Your task to perform on an android device: change the clock display to analog Image 0: 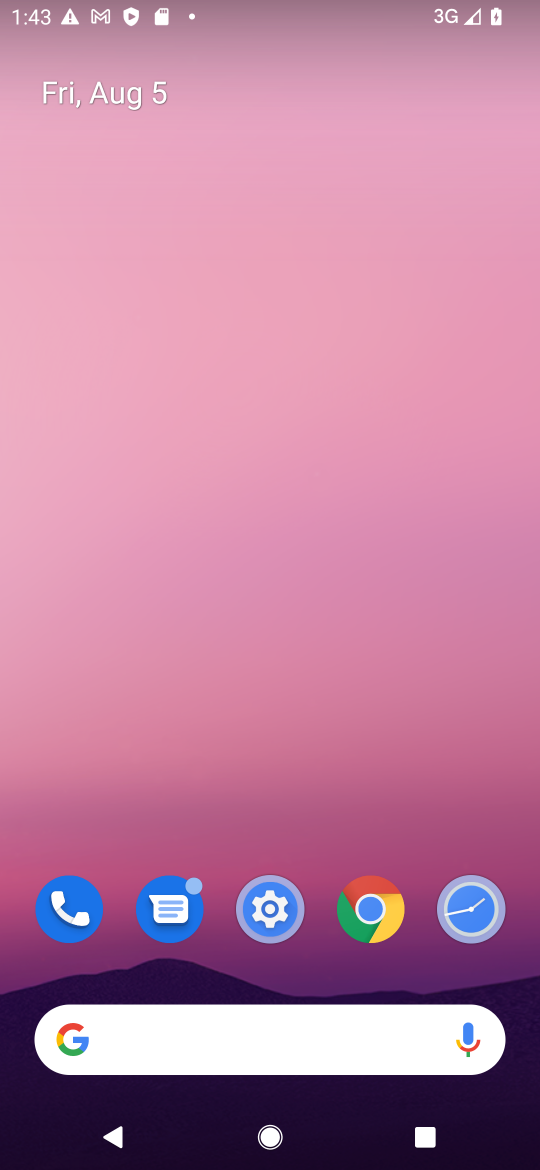
Step 0: drag from (344, 815) to (332, 126)
Your task to perform on an android device: change the clock display to analog Image 1: 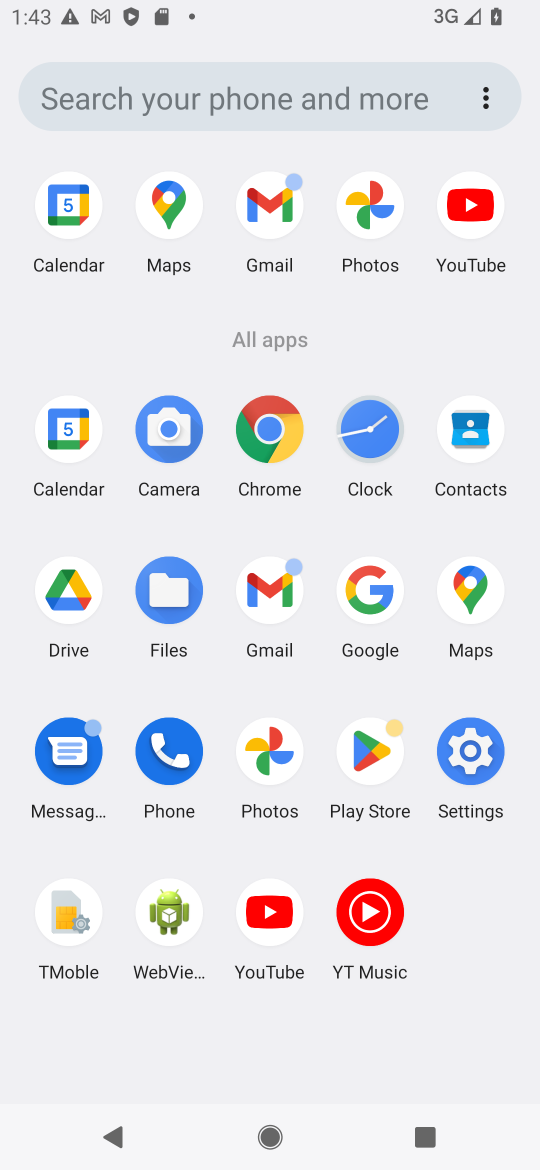
Step 1: click (367, 432)
Your task to perform on an android device: change the clock display to analog Image 2: 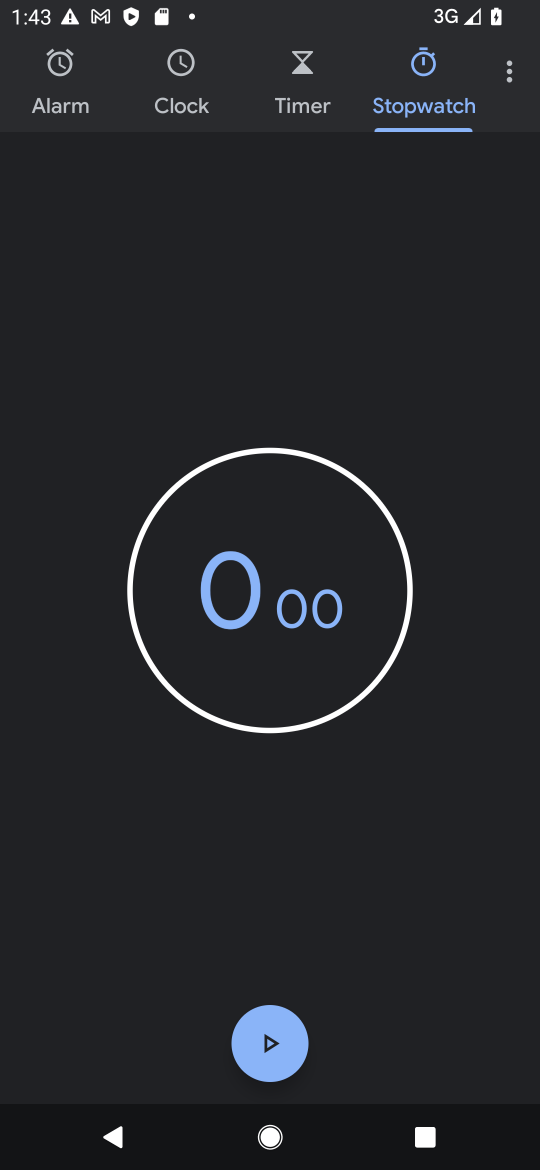
Step 2: click (515, 73)
Your task to perform on an android device: change the clock display to analog Image 3: 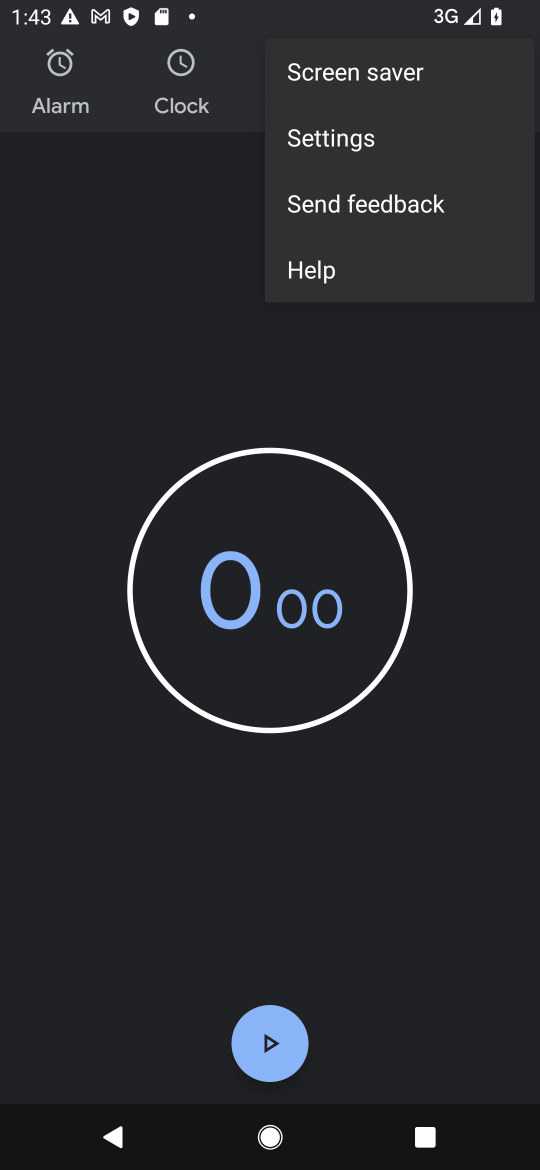
Step 3: click (348, 131)
Your task to perform on an android device: change the clock display to analog Image 4: 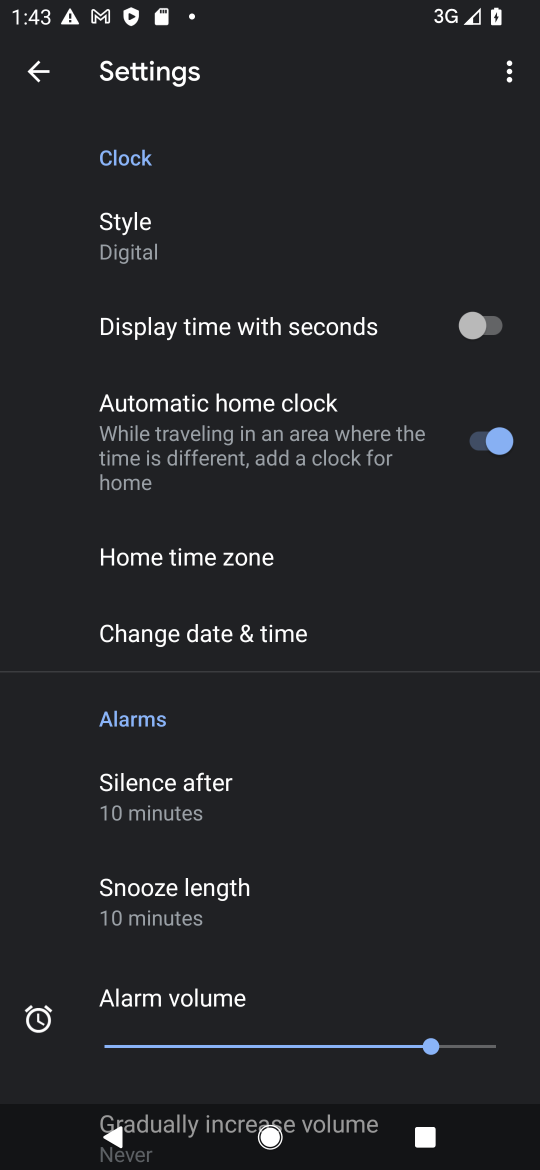
Step 4: click (126, 229)
Your task to perform on an android device: change the clock display to analog Image 5: 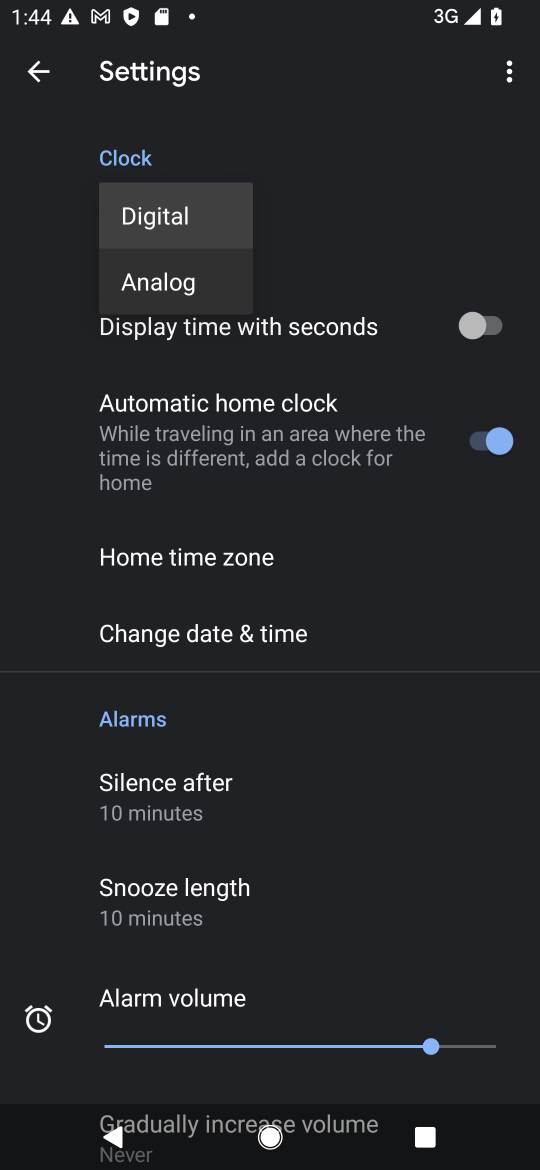
Step 5: click (171, 281)
Your task to perform on an android device: change the clock display to analog Image 6: 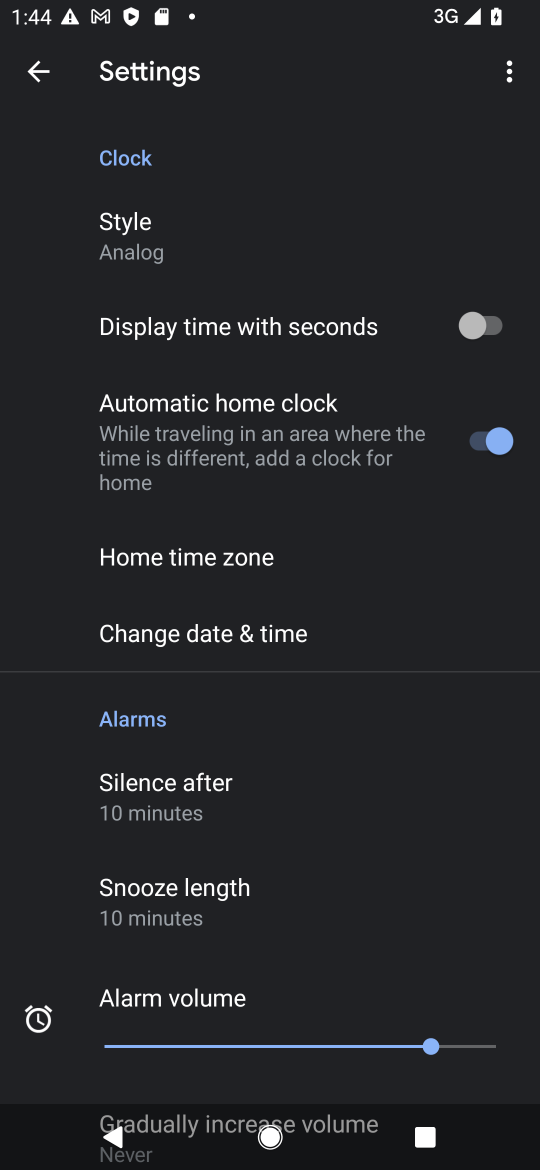
Step 6: task complete